Your task to perform on an android device: Open Chrome and go to the settings page Image 0: 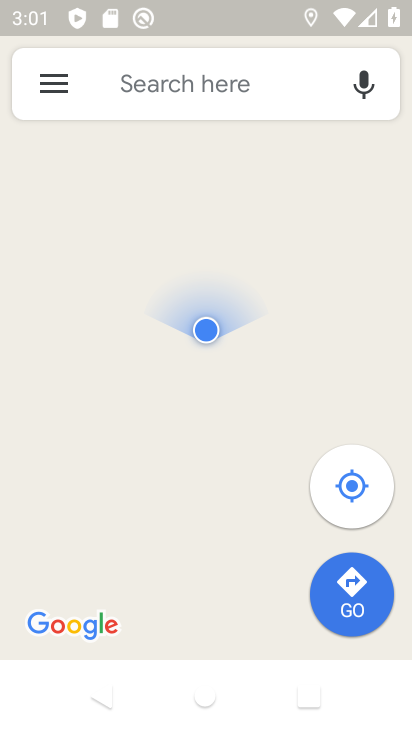
Step 0: press back button
Your task to perform on an android device: Open Chrome and go to the settings page Image 1: 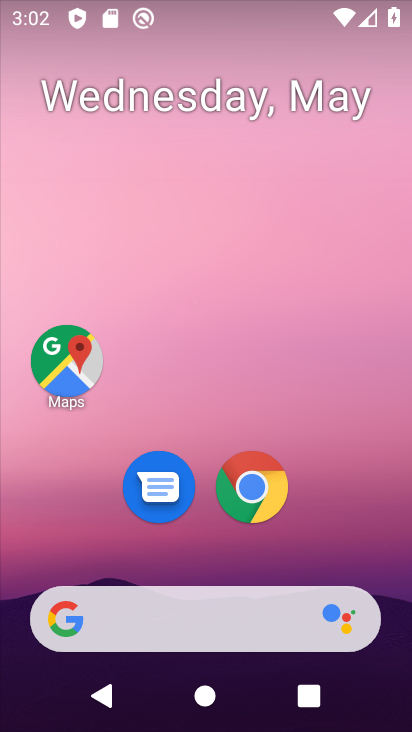
Step 1: drag from (370, 540) to (237, 36)
Your task to perform on an android device: Open Chrome and go to the settings page Image 2: 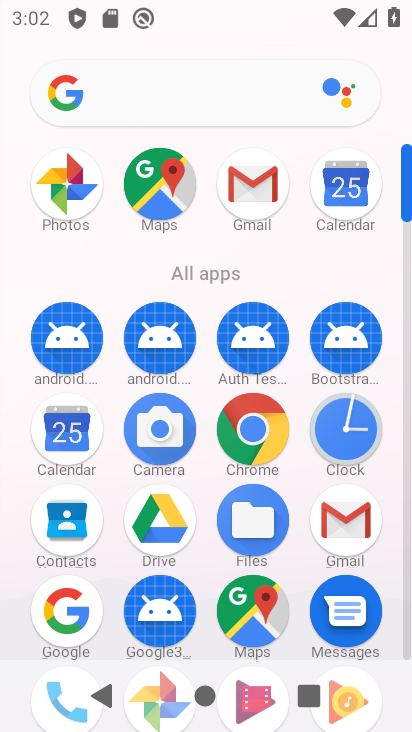
Step 2: drag from (9, 597) to (27, 325)
Your task to perform on an android device: Open Chrome and go to the settings page Image 3: 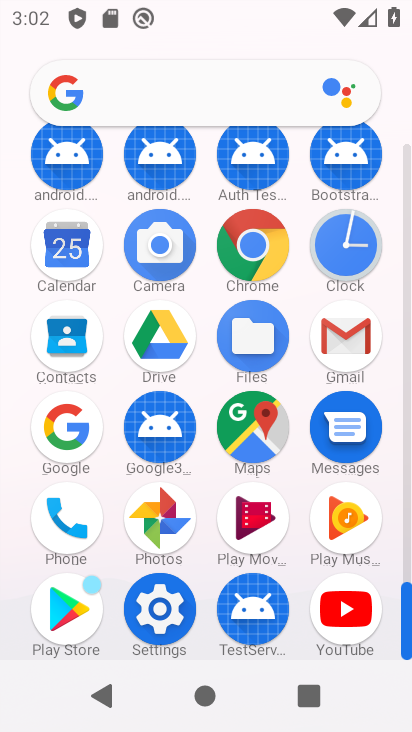
Step 3: click (154, 610)
Your task to perform on an android device: Open Chrome and go to the settings page Image 4: 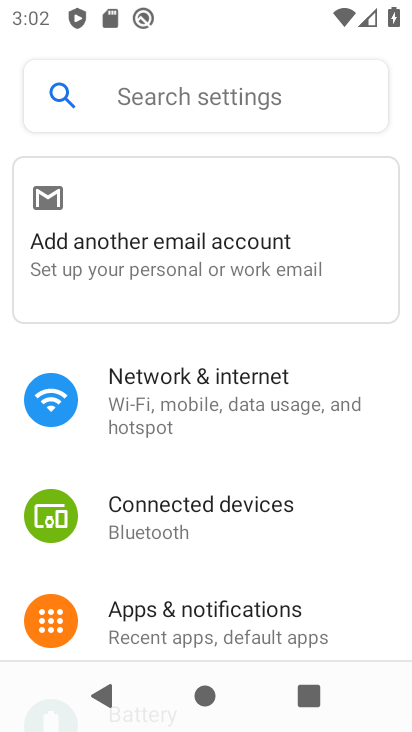
Step 4: press back button
Your task to perform on an android device: Open Chrome and go to the settings page Image 5: 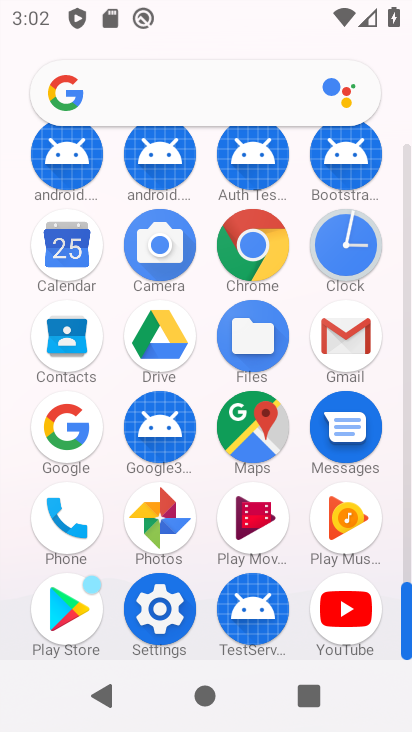
Step 5: click (252, 239)
Your task to perform on an android device: Open Chrome and go to the settings page Image 6: 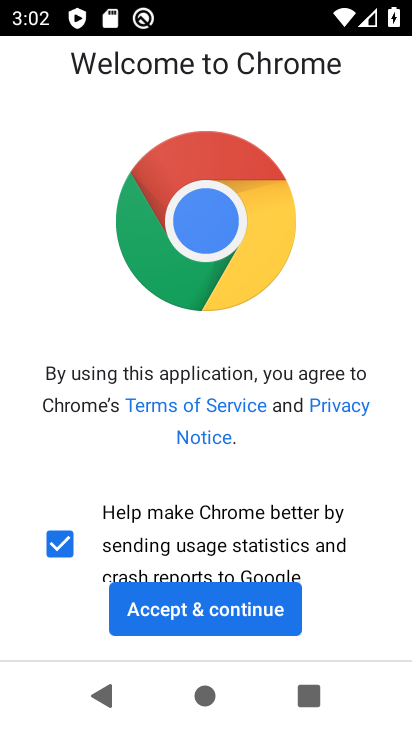
Step 6: click (177, 596)
Your task to perform on an android device: Open Chrome and go to the settings page Image 7: 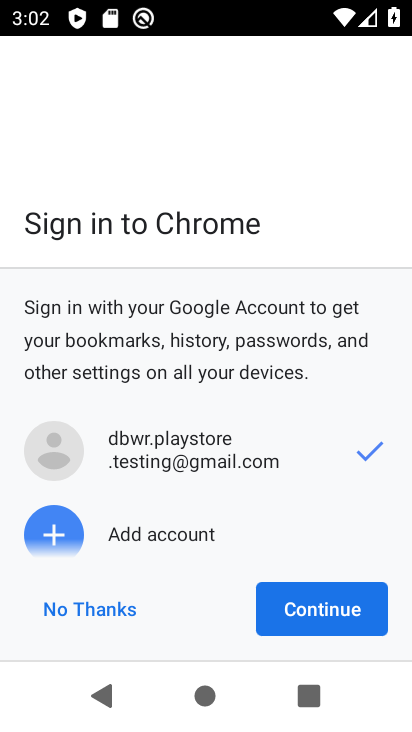
Step 7: click (301, 615)
Your task to perform on an android device: Open Chrome and go to the settings page Image 8: 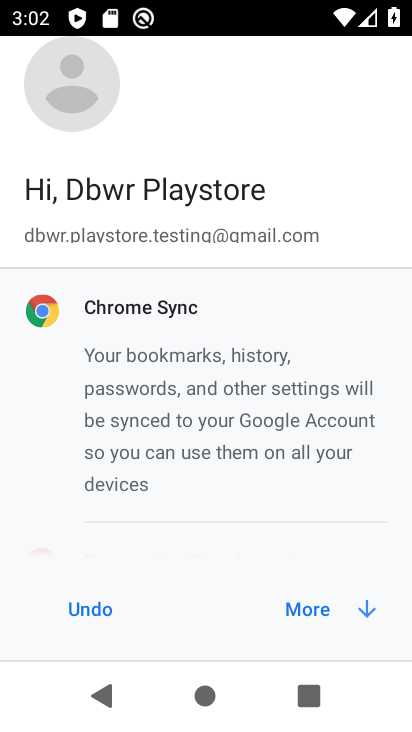
Step 8: click (295, 606)
Your task to perform on an android device: Open Chrome and go to the settings page Image 9: 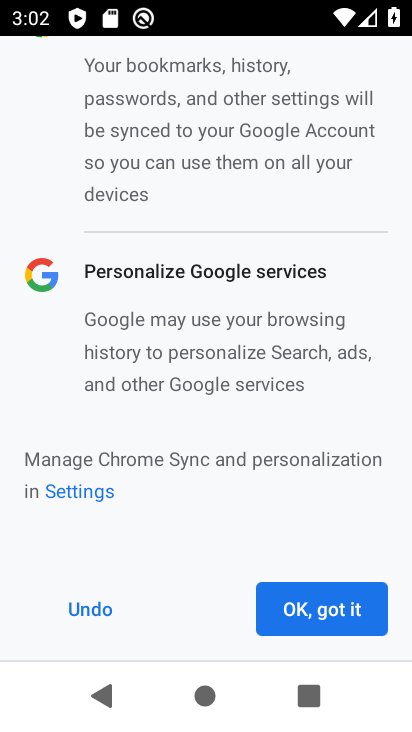
Step 9: click (300, 604)
Your task to perform on an android device: Open Chrome and go to the settings page Image 10: 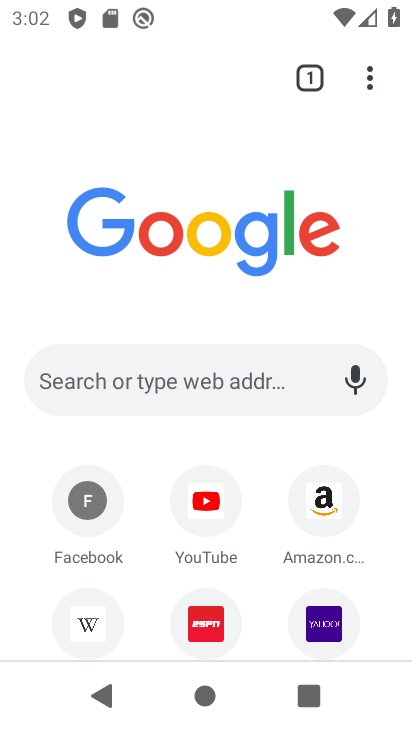
Step 10: task complete